Your task to perform on an android device: change notifications settings Image 0: 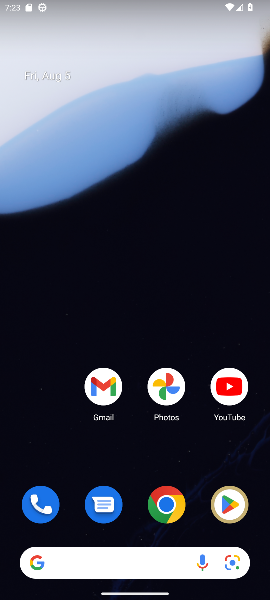
Step 0: drag from (147, 559) to (82, 8)
Your task to perform on an android device: change notifications settings Image 1: 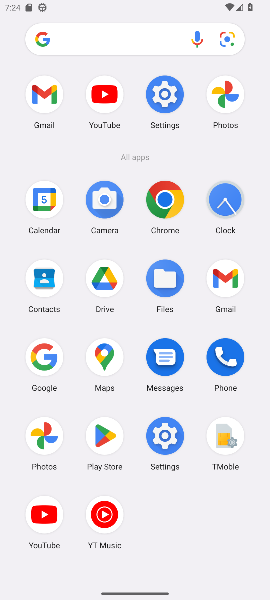
Step 1: click (167, 95)
Your task to perform on an android device: change notifications settings Image 2: 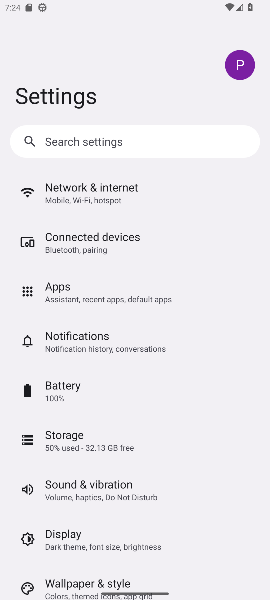
Step 2: click (102, 201)
Your task to perform on an android device: change notifications settings Image 3: 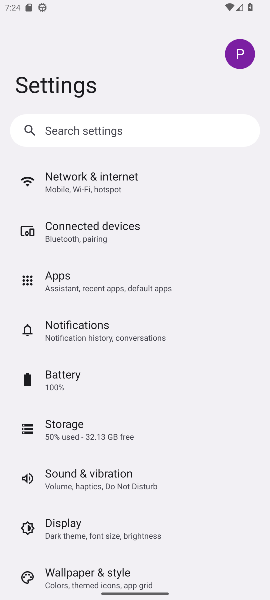
Step 3: click (96, 327)
Your task to perform on an android device: change notifications settings Image 4: 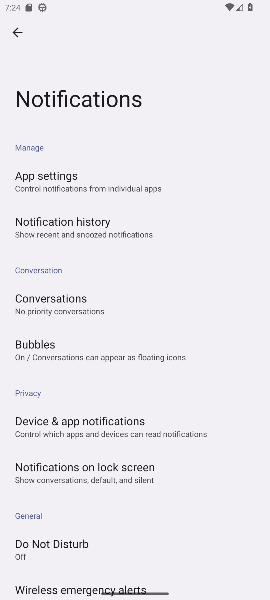
Step 4: click (89, 551)
Your task to perform on an android device: change notifications settings Image 5: 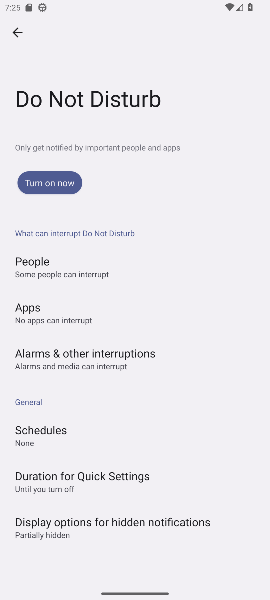
Step 5: drag from (139, 453) to (122, 271)
Your task to perform on an android device: change notifications settings Image 6: 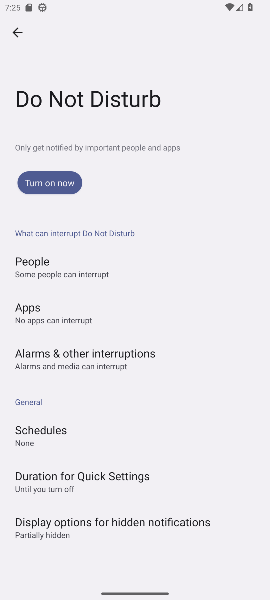
Step 6: click (61, 190)
Your task to perform on an android device: change notifications settings Image 7: 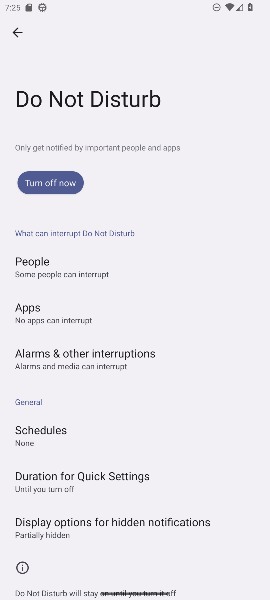
Step 7: task complete